Your task to perform on an android device: What's US dollar exchange rate against the Japanese Yen? Image 0: 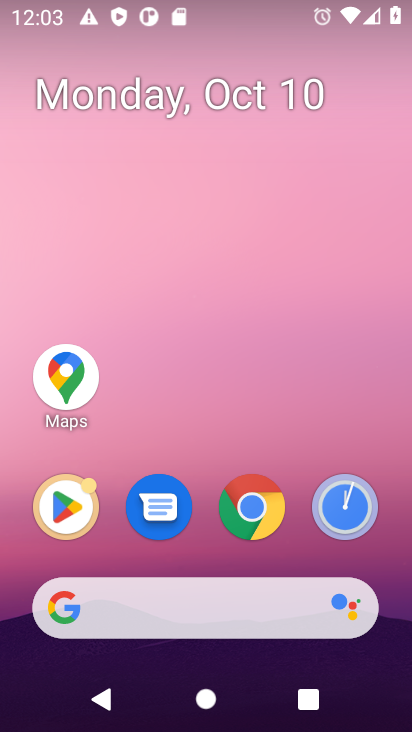
Step 0: click (225, 628)
Your task to perform on an android device: What's US dollar exchange rate against the Japanese Yen? Image 1: 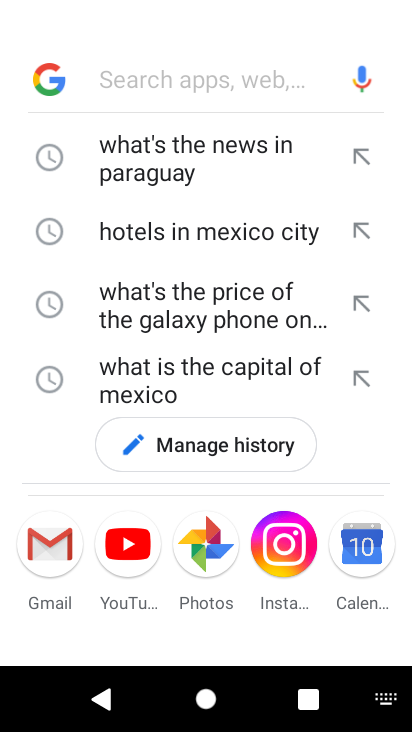
Step 1: type "US dollar exchange rate against the Japanese Yen"
Your task to perform on an android device: What's US dollar exchange rate against the Japanese Yen? Image 2: 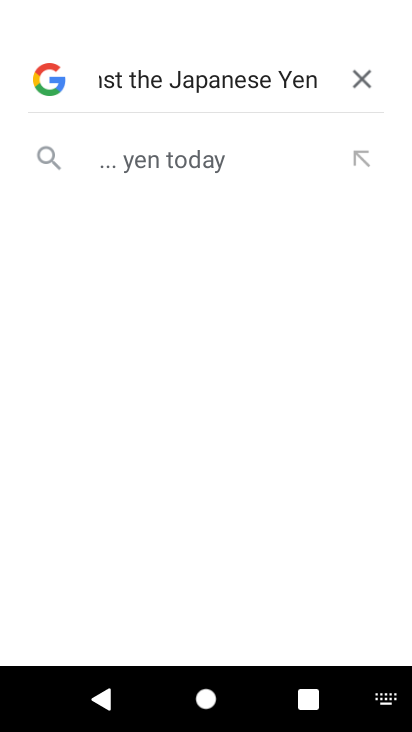
Step 2: press enter
Your task to perform on an android device: What's US dollar exchange rate against the Japanese Yen? Image 3: 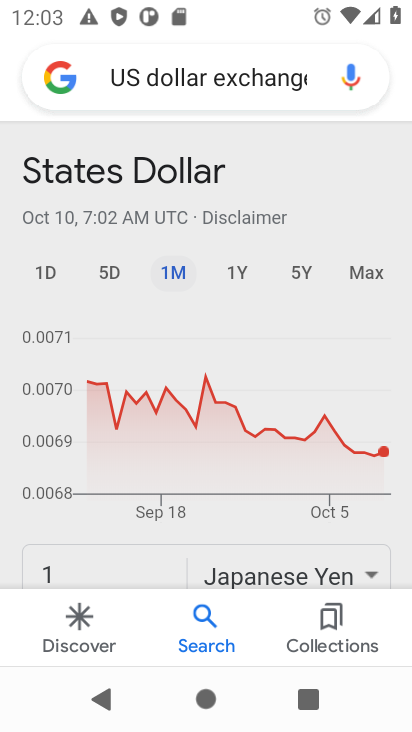
Step 3: task complete